Your task to perform on an android device: turn off location Image 0: 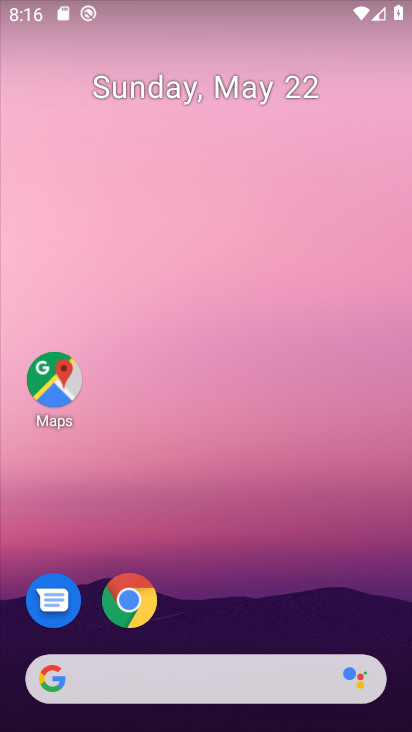
Step 0: drag from (205, 661) to (250, 405)
Your task to perform on an android device: turn off location Image 1: 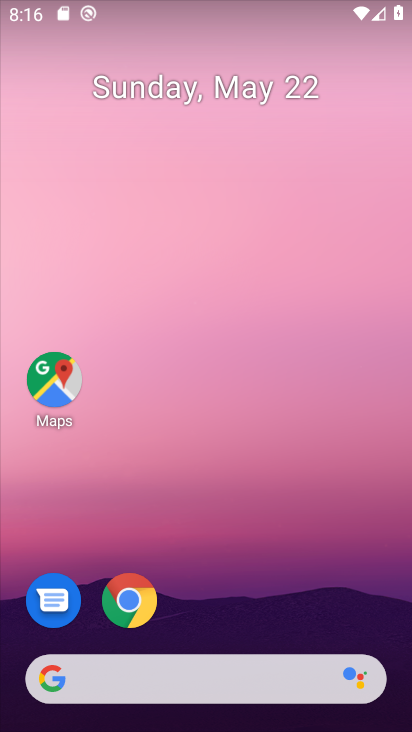
Step 1: drag from (205, 625) to (258, 284)
Your task to perform on an android device: turn off location Image 2: 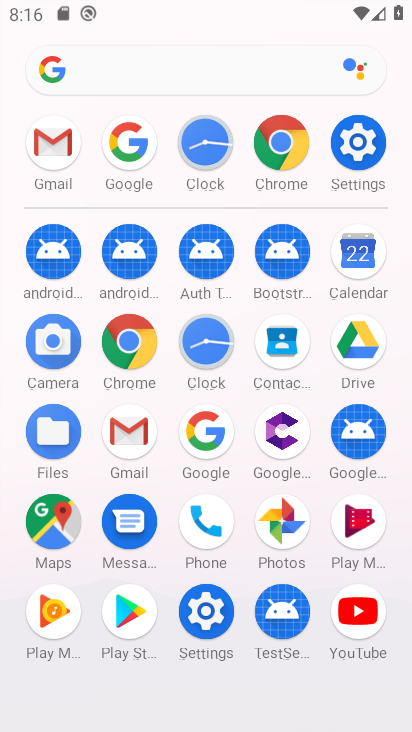
Step 2: click (365, 144)
Your task to perform on an android device: turn off location Image 3: 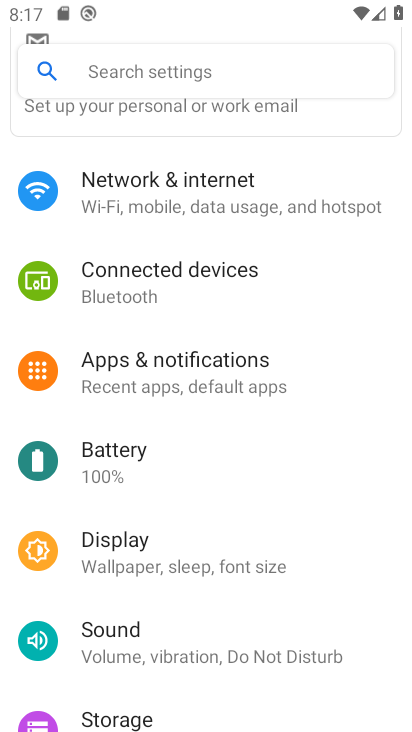
Step 3: drag from (129, 717) to (201, 253)
Your task to perform on an android device: turn off location Image 4: 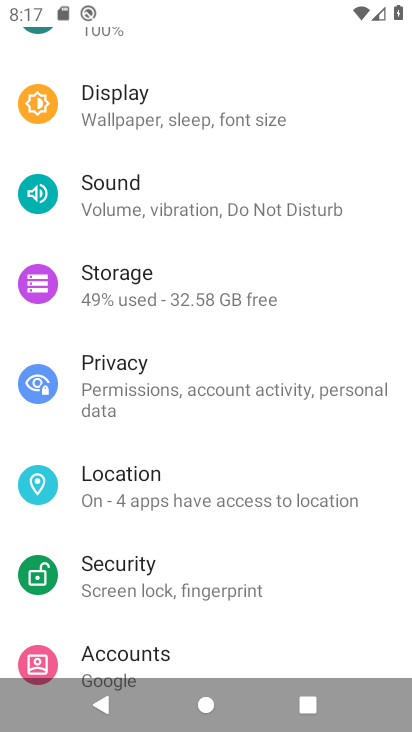
Step 4: click (93, 484)
Your task to perform on an android device: turn off location Image 5: 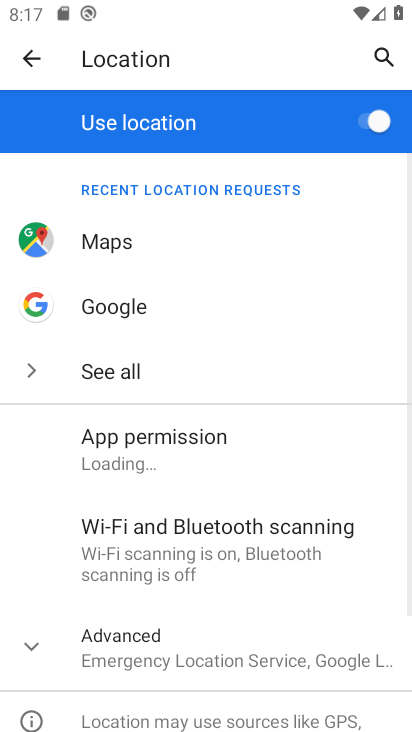
Step 5: click (363, 119)
Your task to perform on an android device: turn off location Image 6: 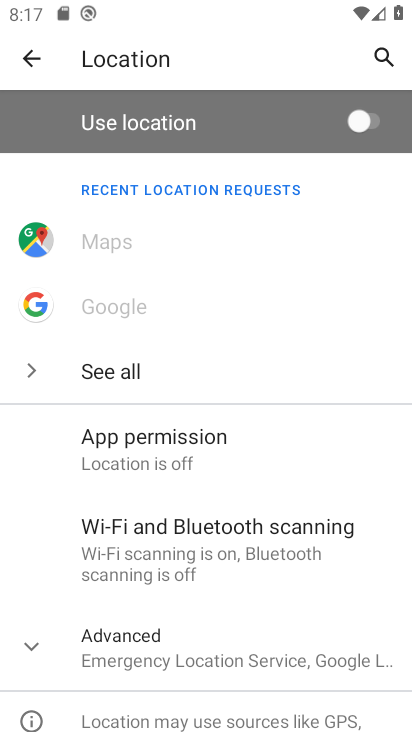
Step 6: task complete